Your task to perform on an android device: turn on improve location accuracy Image 0: 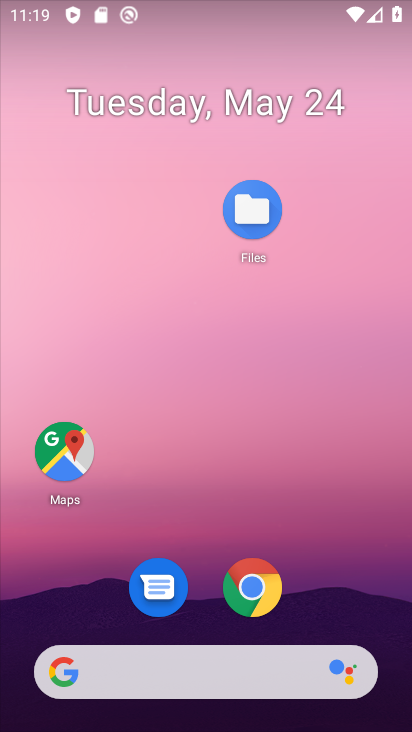
Step 0: drag from (329, 593) to (326, 234)
Your task to perform on an android device: turn on improve location accuracy Image 1: 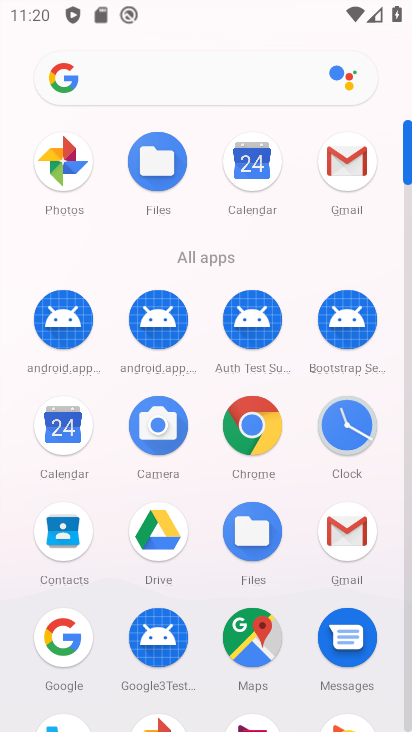
Step 1: click (409, 176)
Your task to perform on an android device: turn on improve location accuracy Image 2: 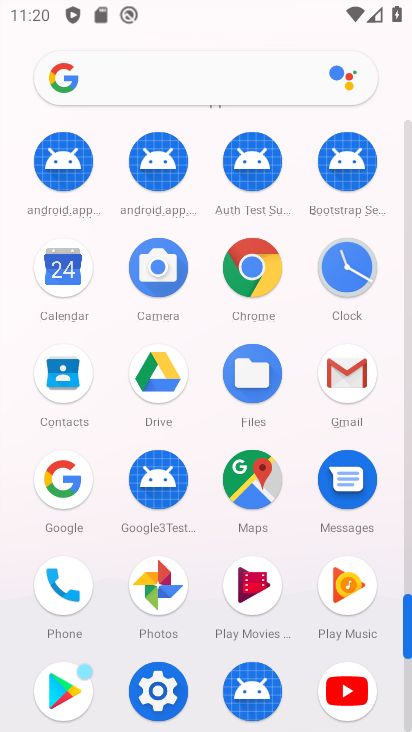
Step 2: click (158, 698)
Your task to perform on an android device: turn on improve location accuracy Image 3: 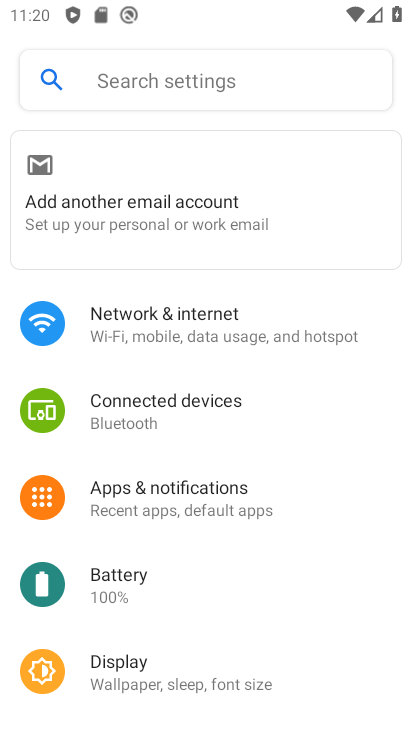
Step 3: drag from (301, 670) to (243, 204)
Your task to perform on an android device: turn on improve location accuracy Image 4: 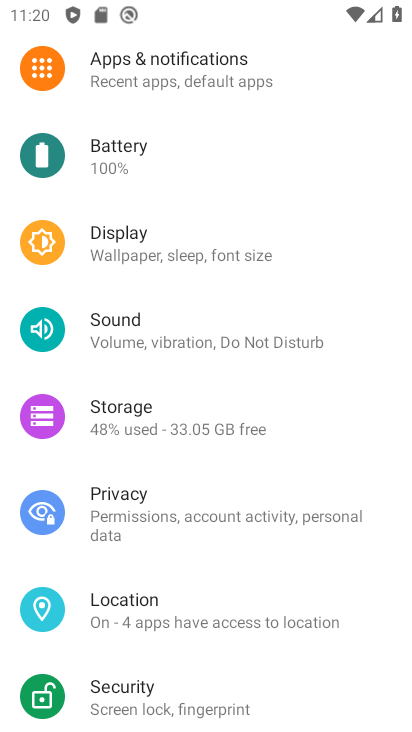
Step 4: click (140, 607)
Your task to perform on an android device: turn on improve location accuracy Image 5: 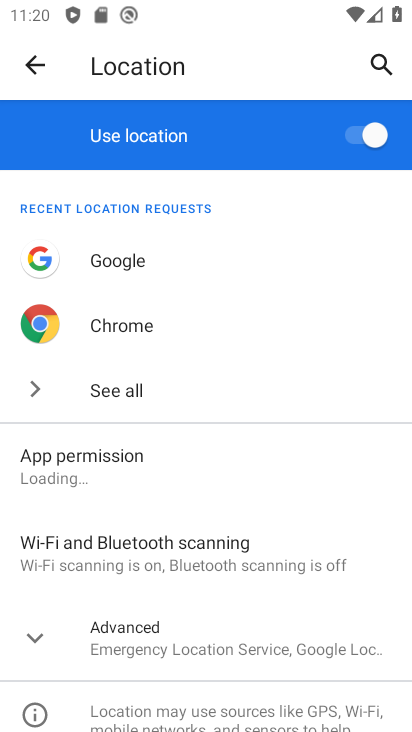
Step 5: click (190, 644)
Your task to perform on an android device: turn on improve location accuracy Image 6: 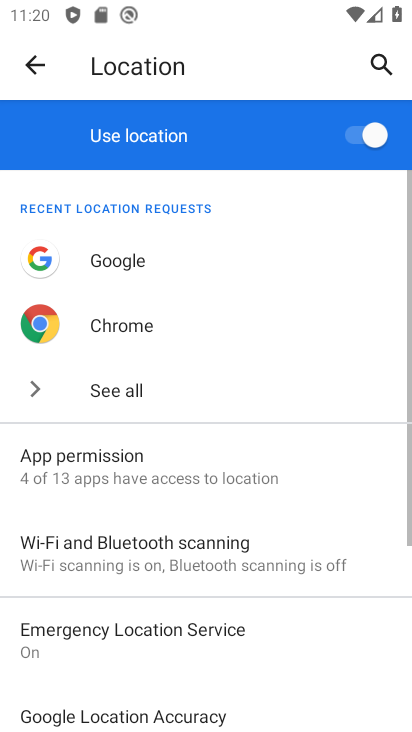
Step 6: click (154, 720)
Your task to perform on an android device: turn on improve location accuracy Image 7: 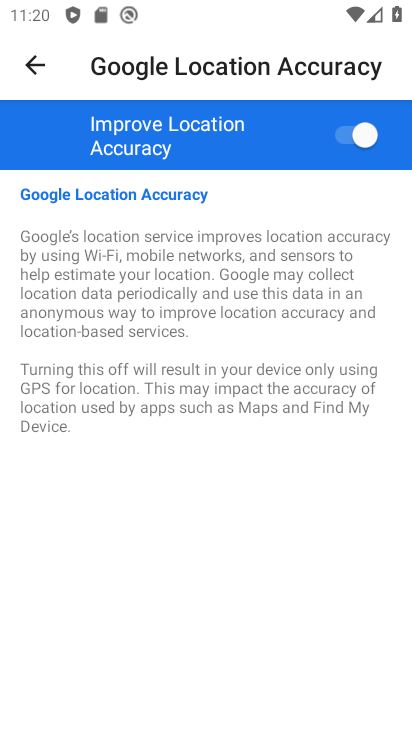
Step 7: task complete